Your task to perform on an android device: set the stopwatch Image 0: 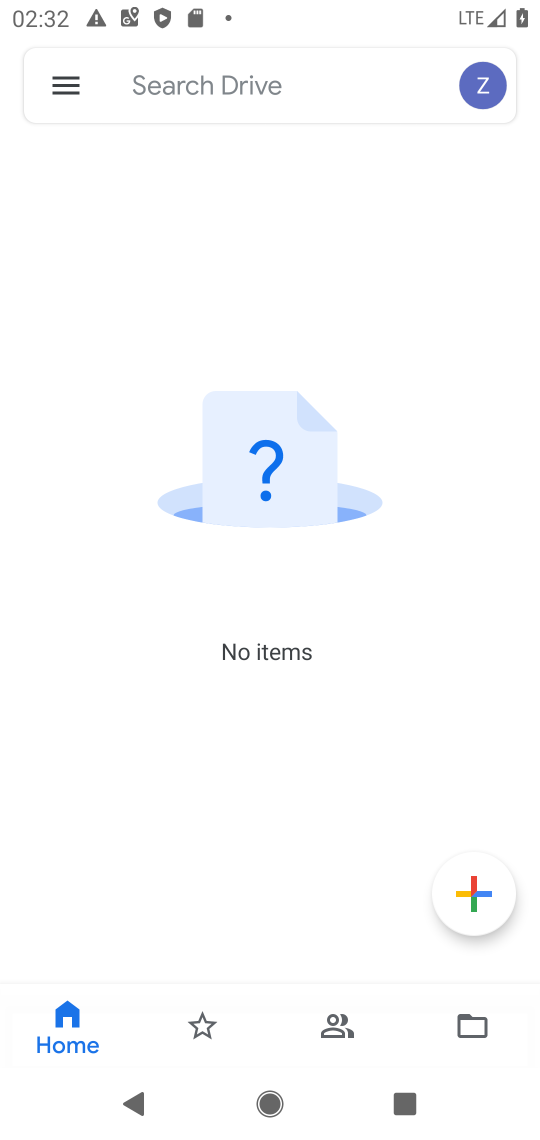
Step 0: press home button
Your task to perform on an android device: set the stopwatch Image 1: 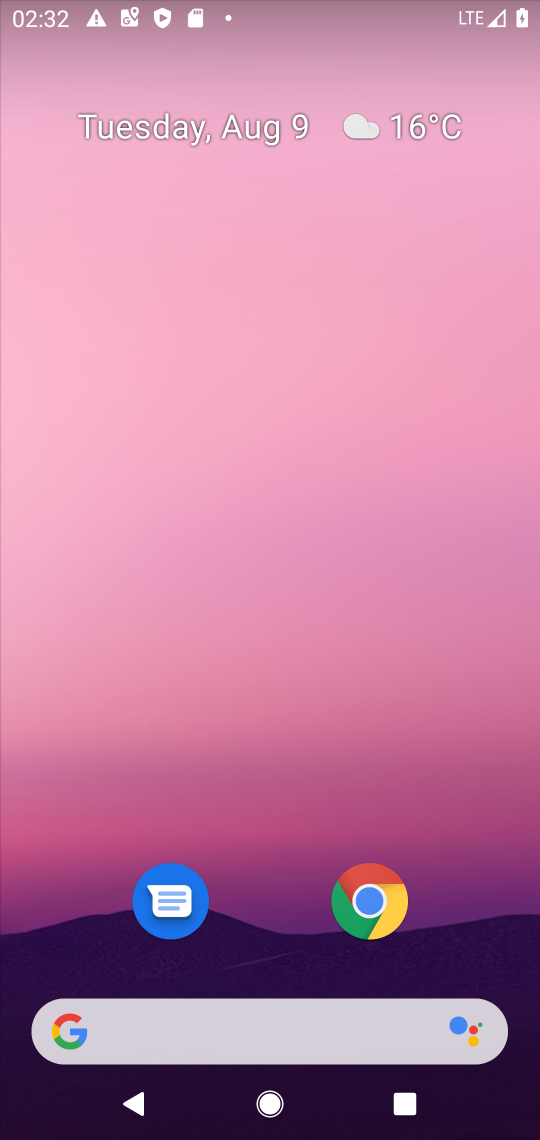
Step 1: drag from (510, 952) to (454, 162)
Your task to perform on an android device: set the stopwatch Image 2: 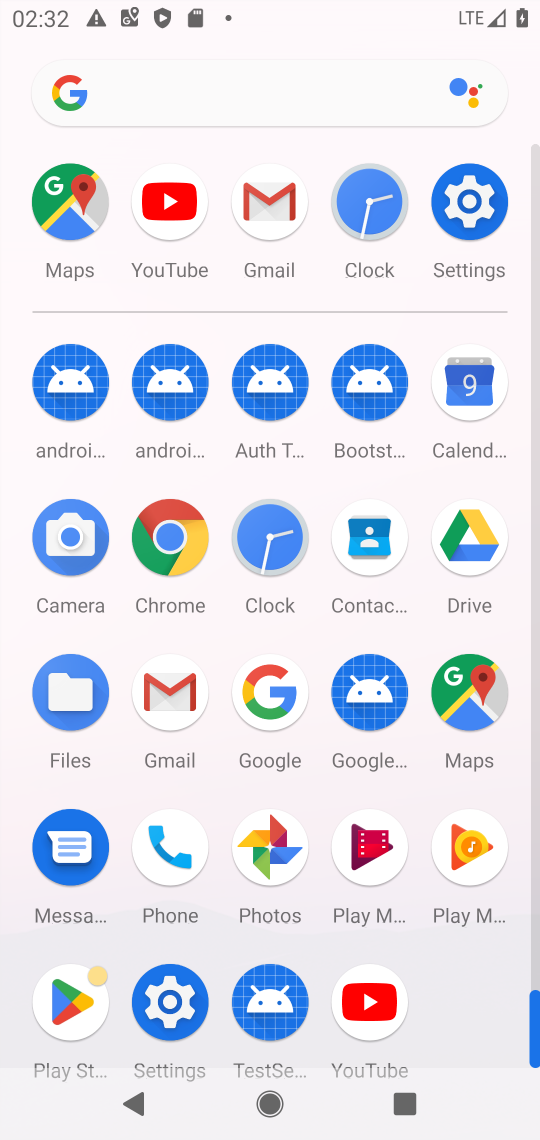
Step 2: click (270, 539)
Your task to perform on an android device: set the stopwatch Image 3: 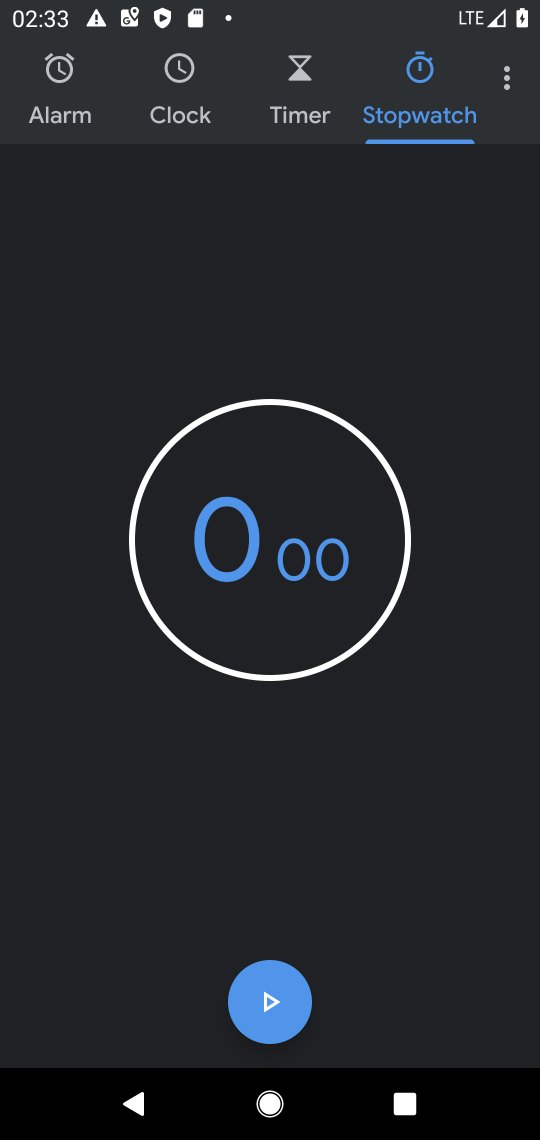
Step 3: task complete